Your task to perform on an android device: check battery use Image 0: 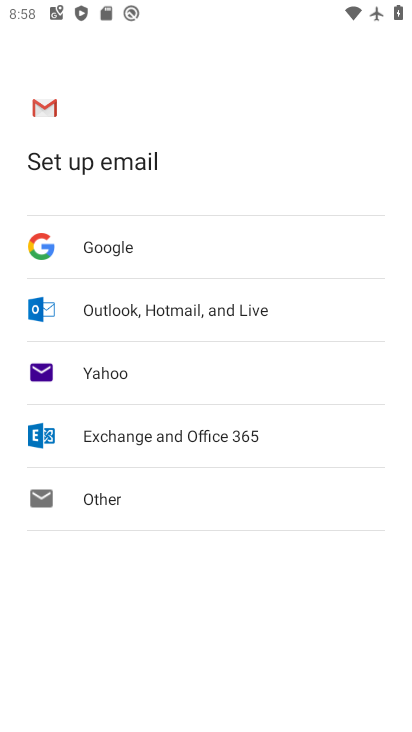
Step 0: press home button
Your task to perform on an android device: check battery use Image 1: 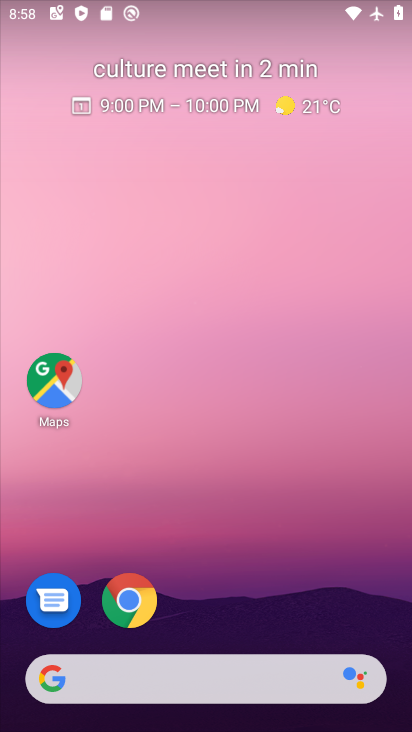
Step 1: drag from (369, 612) to (355, 141)
Your task to perform on an android device: check battery use Image 2: 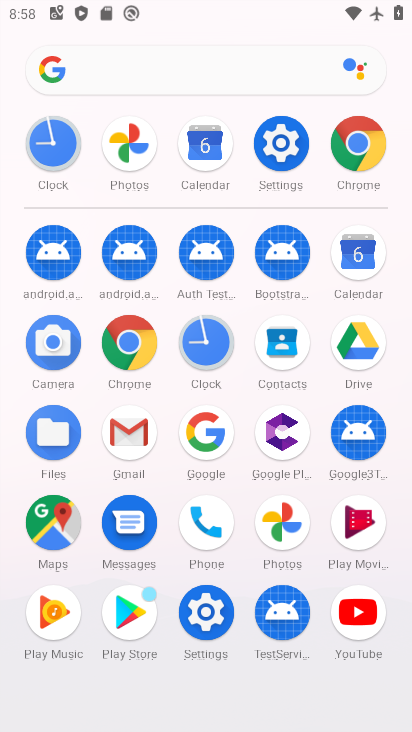
Step 2: click (204, 612)
Your task to perform on an android device: check battery use Image 3: 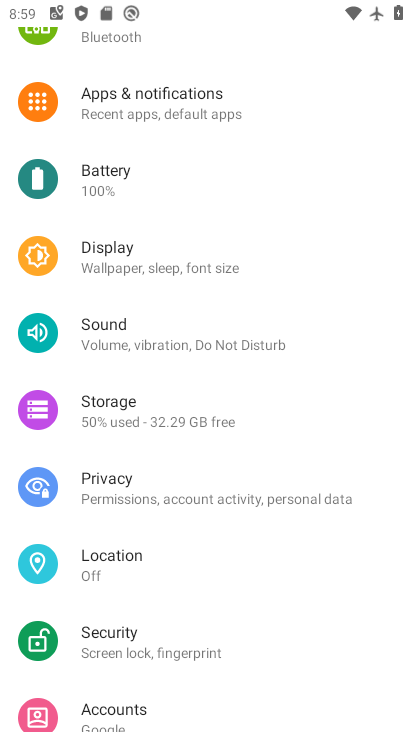
Step 3: click (108, 174)
Your task to perform on an android device: check battery use Image 4: 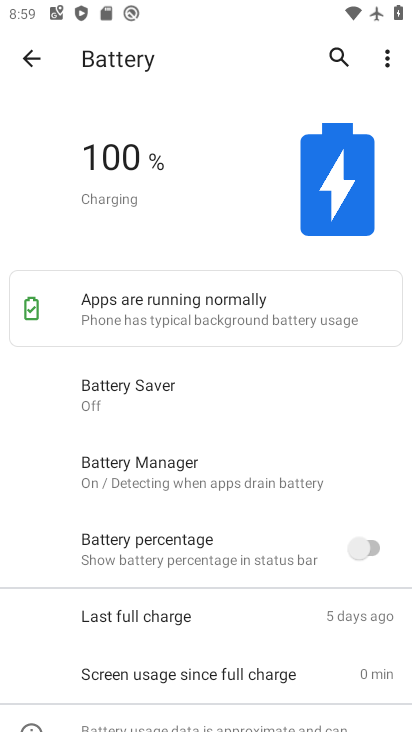
Step 4: drag from (258, 645) to (232, 105)
Your task to perform on an android device: check battery use Image 5: 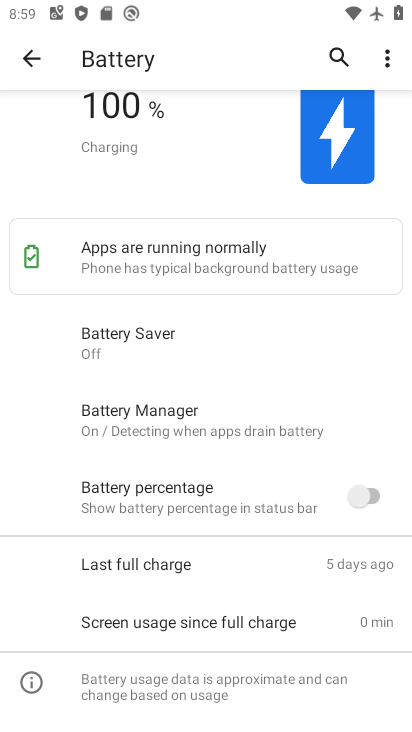
Step 5: click (383, 64)
Your task to perform on an android device: check battery use Image 6: 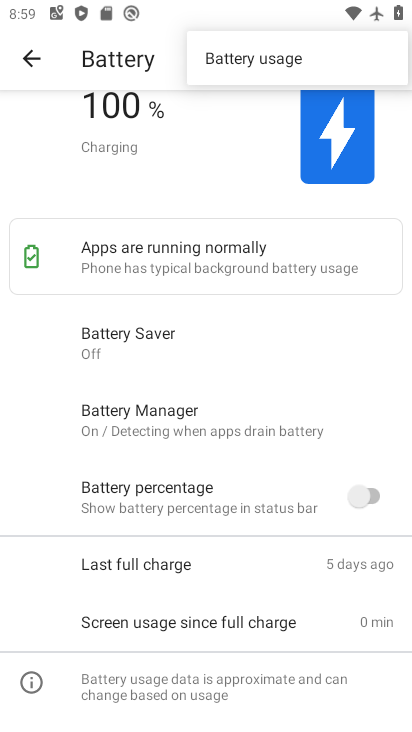
Step 6: click (215, 54)
Your task to perform on an android device: check battery use Image 7: 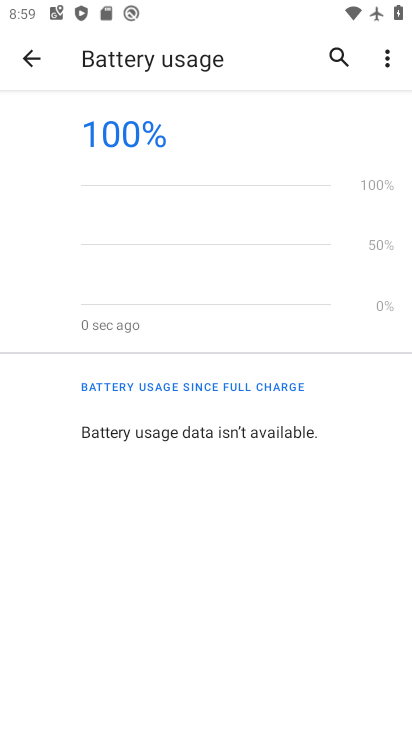
Step 7: task complete